Your task to perform on an android device: Search for sushi restaurants on Maps Image 0: 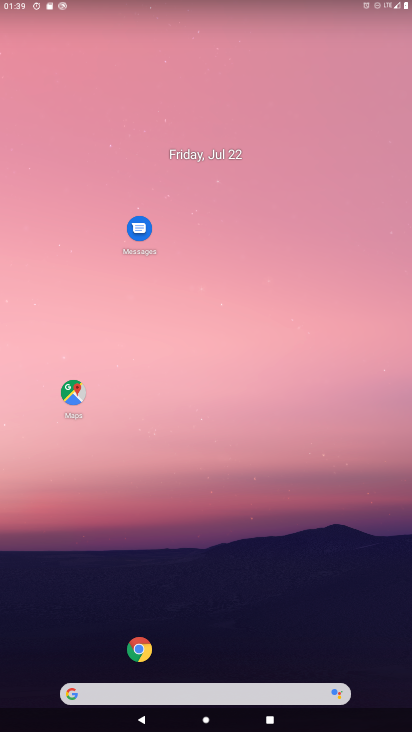
Step 0: click (69, 391)
Your task to perform on an android device: Search for sushi restaurants on Maps Image 1: 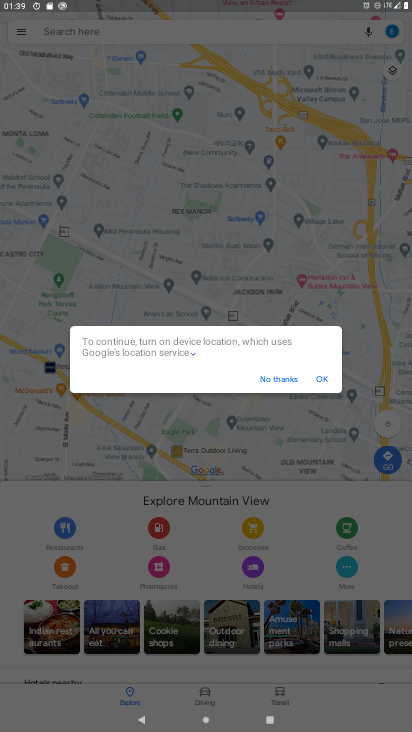
Step 1: click (46, 25)
Your task to perform on an android device: Search for sushi restaurants on Maps Image 2: 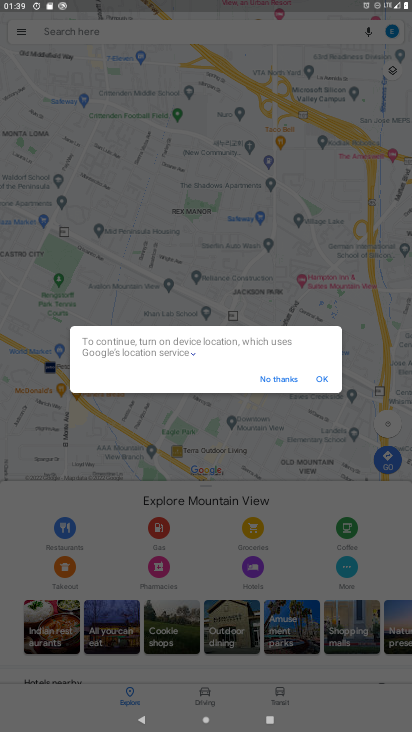
Step 2: click (320, 379)
Your task to perform on an android device: Search for sushi restaurants on Maps Image 3: 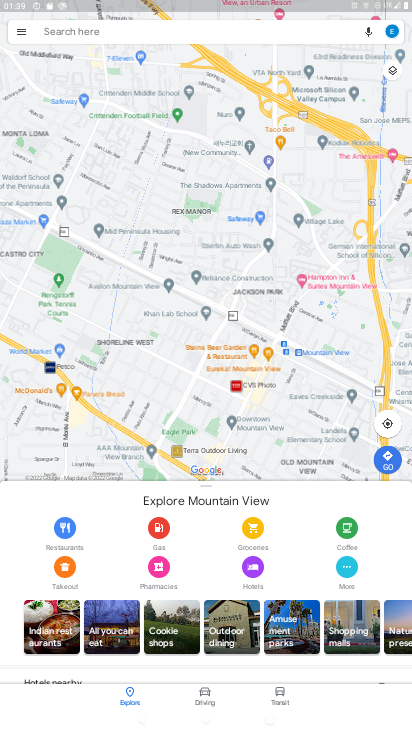
Step 3: click (68, 27)
Your task to perform on an android device: Search for sushi restaurants on Maps Image 4: 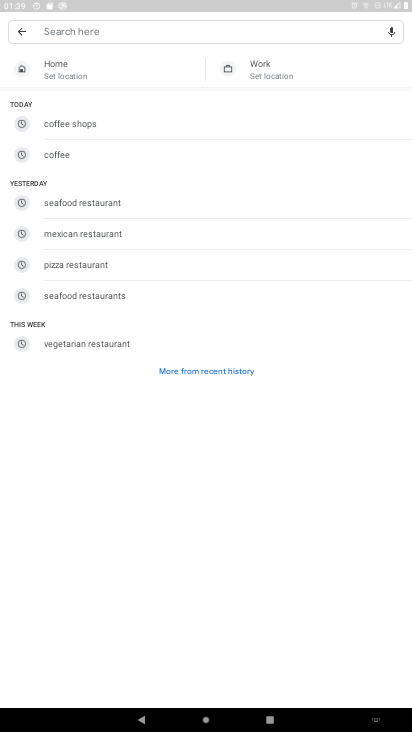
Step 4: type " sushi restaurants"
Your task to perform on an android device: Search for sushi restaurants on Maps Image 5: 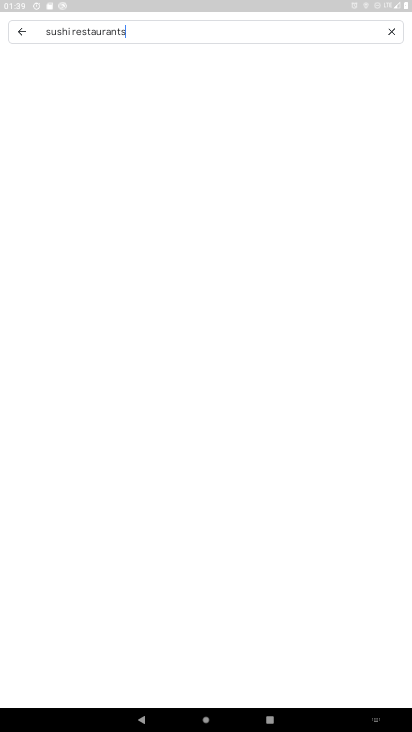
Step 5: type ""
Your task to perform on an android device: Search for sushi restaurants on Maps Image 6: 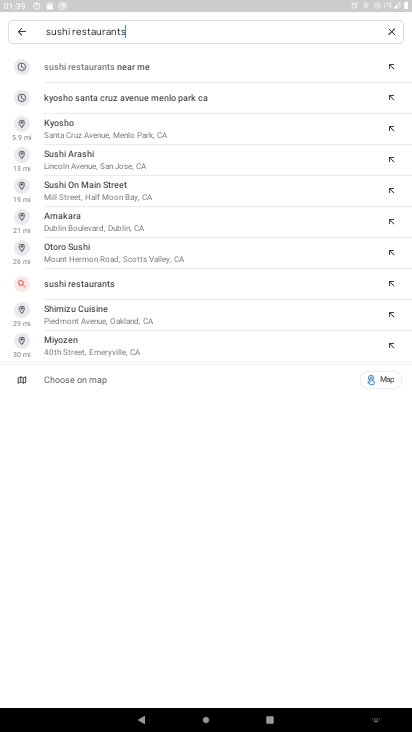
Step 6: type ""
Your task to perform on an android device: Search for sushi restaurants on Maps Image 7: 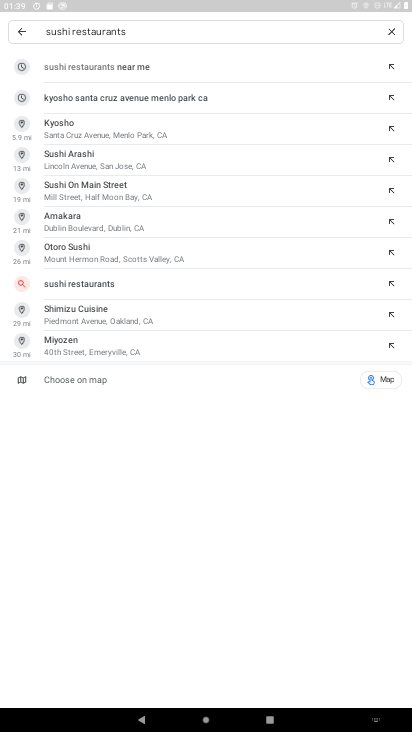
Step 7: type ""
Your task to perform on an android device: Search for sushi restaurants on Maps Image 8: 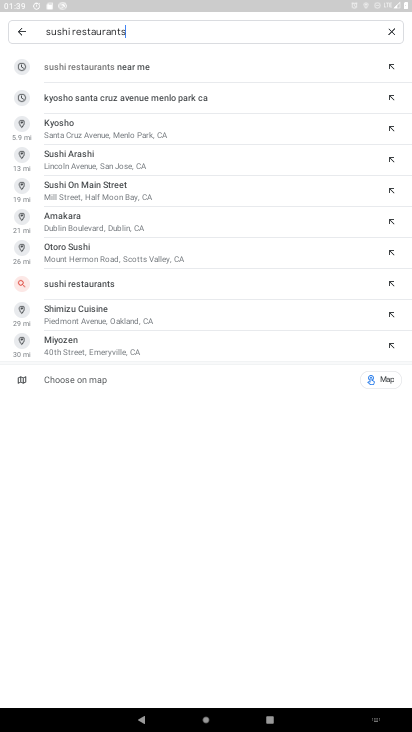
Step 8: type ""
Your task to perform on an android device: Search for sushi restaurants on Maps Image 9: 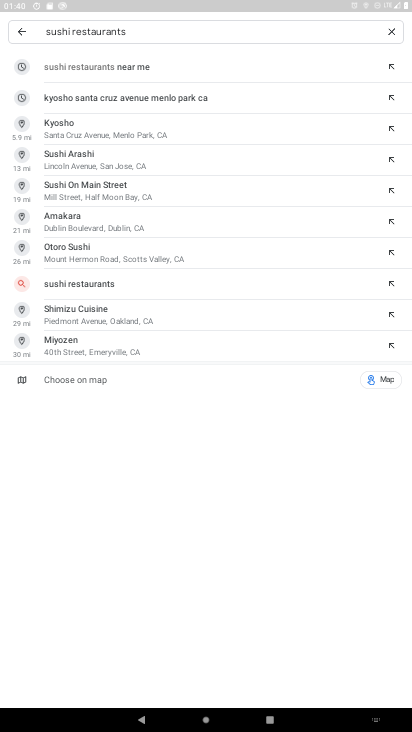
Step 9: type ""
Your task to perform on an android device: Search for sushi restaurants on Maps Image 10: 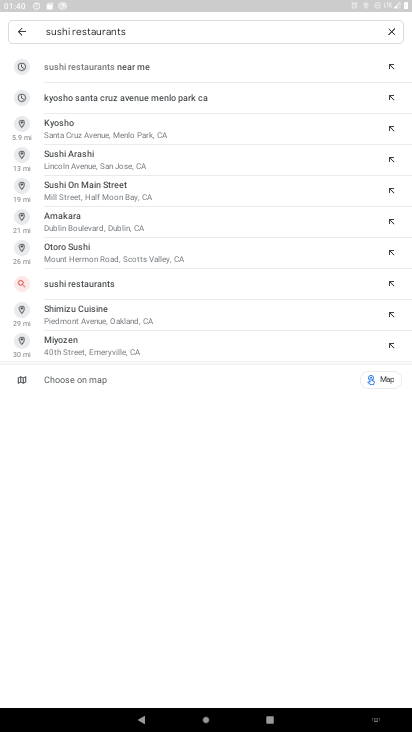
Step 10: task complete